Your task to perform on an android device: turn on improve location accuracy Image 0: 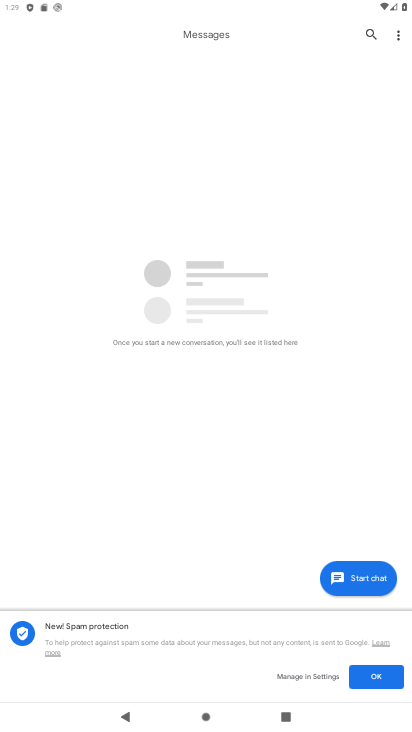
Step 0: press home button
Your task to perform on an android device: turn on improve location accuracy Image 1: 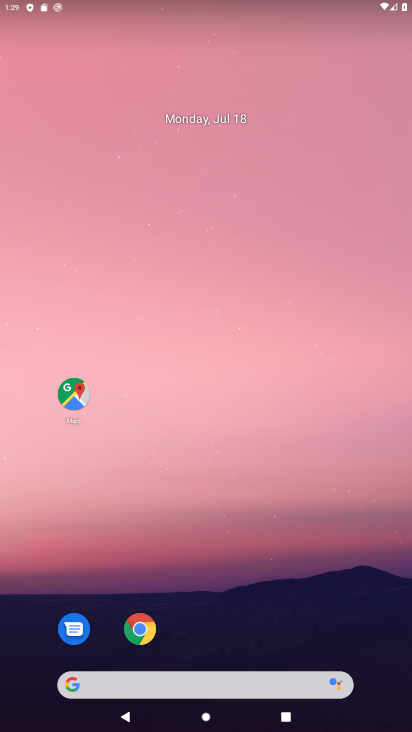
Step 1: drag from (214, 647) to (214, 226)
Your task to perform on an android device: turn on improve location accuracy Image 2: 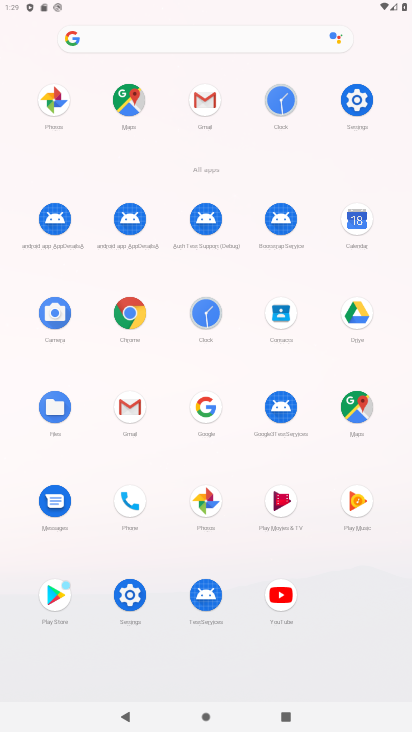
Step 2: click (348, 105)
Your task to perform on an android device: turn on improve location accuracy Image 3: 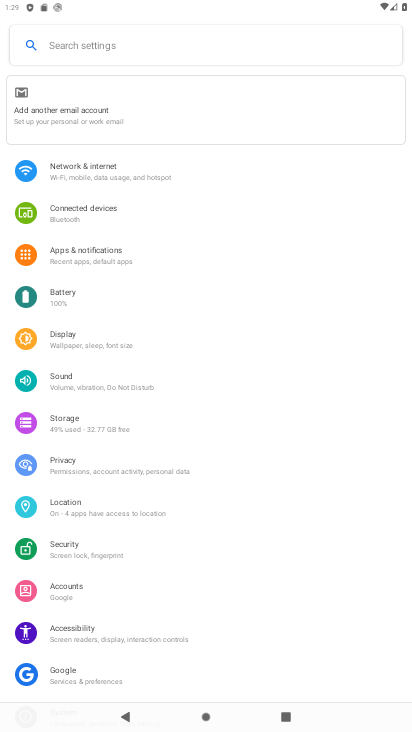
Step 3: click (86, 507)
Your task to perform on an android device: turn on improve location accuracy Image 4: 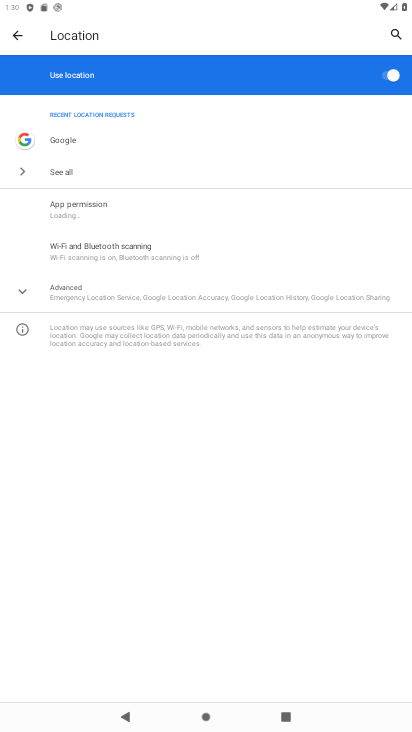
Step 4: click (88, 298)
Your task to perform on an android device: turn on improve location accuracy Image 5: 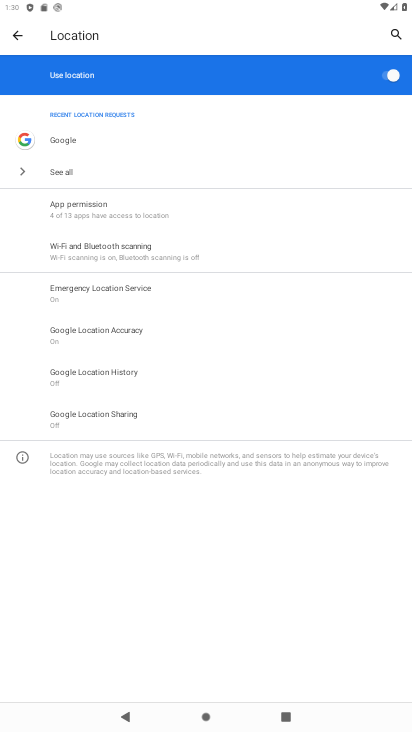
Step 5: click (97, 326)
Your task to perform on an android device: turn on improve location accuracy Image 6: 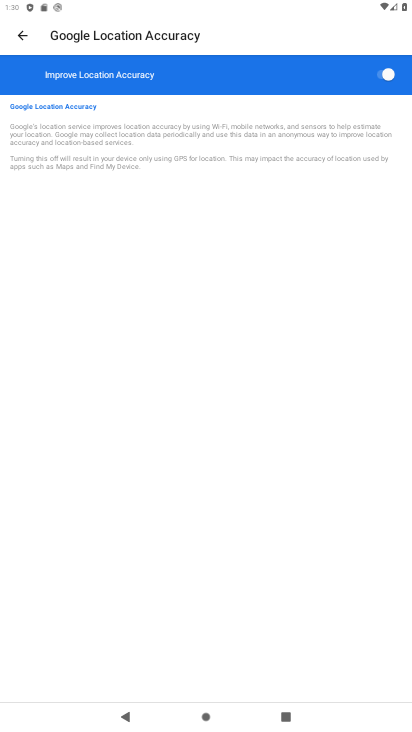
Step 6: task complete